Your task to perform on an android device: Go to battery settings Image 0: 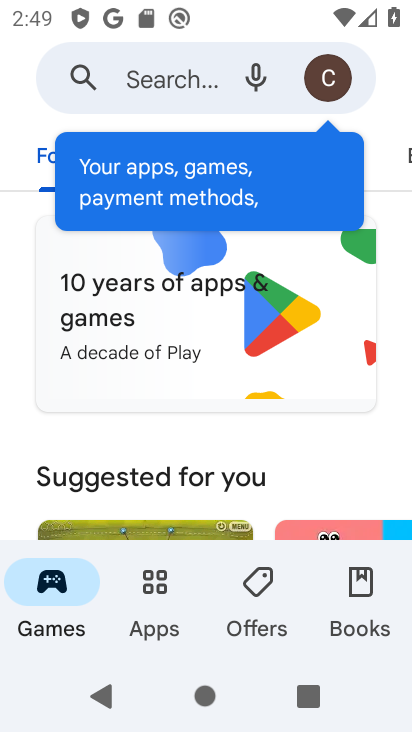
Step 0: press back button
Your task to perform on an android device: Go to battery settings Image 1: 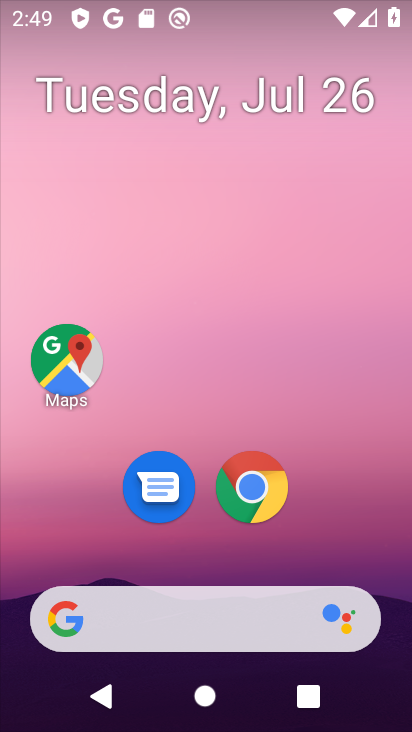
Step 1: drag from (185, 571) to (254, 46)
Your task to perform on an android device: Go to battery settings Image 2: 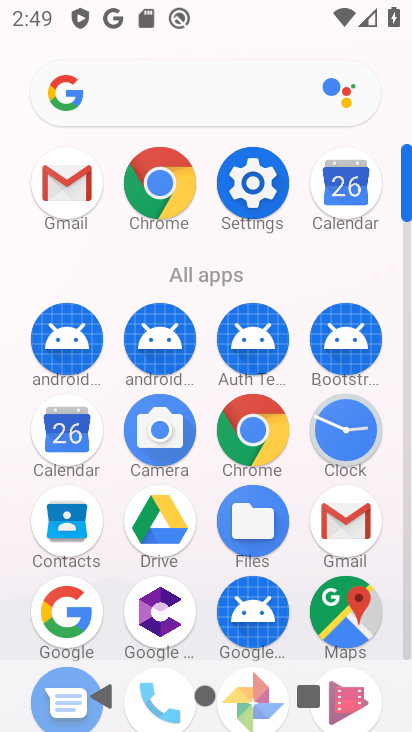
Step 2: click (245, 168)
Your task to perform on an android device: Go to battery settings Image 3: 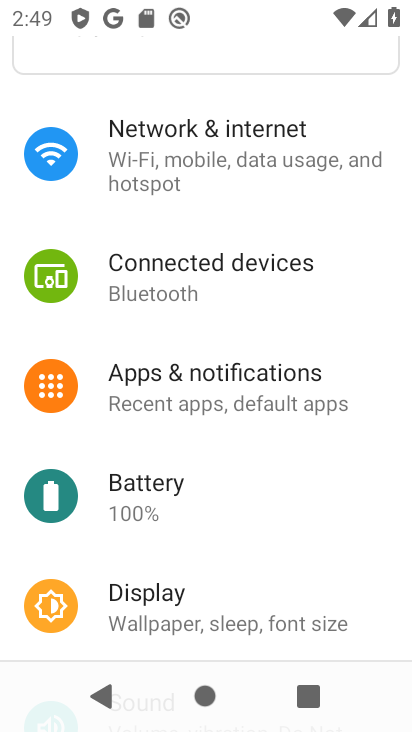
Step 3: click (159, 499)
Your task to perform on an android device: Go to battery settings Image 4: 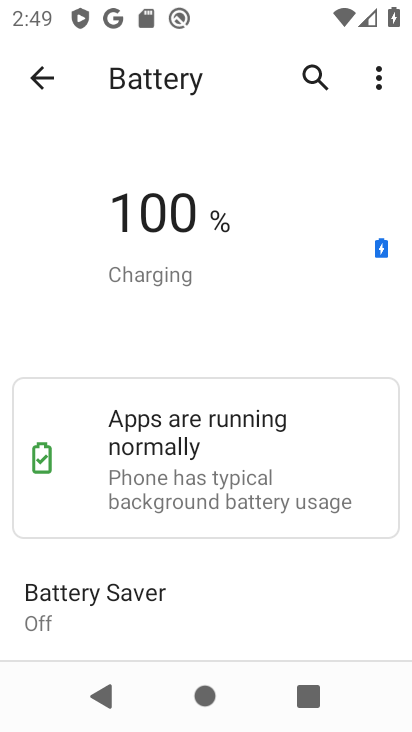
Step 4: task complete